Your task to perform on an android device: Open display settings Image 0: 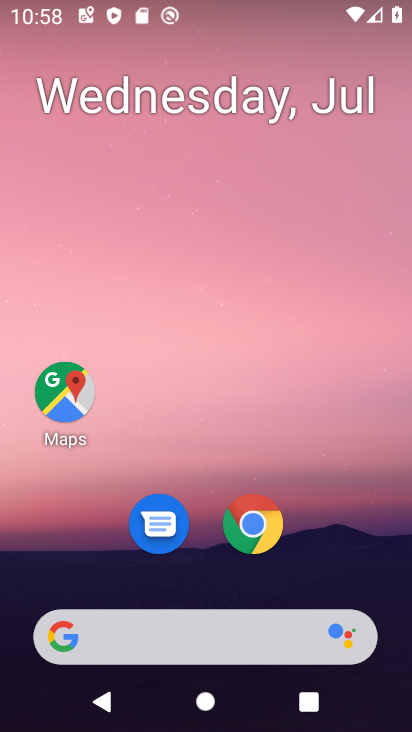
Step 0: drag from (152, 643) to (171, 35)
Your task to perform on an android device: Open display settings Image 1: 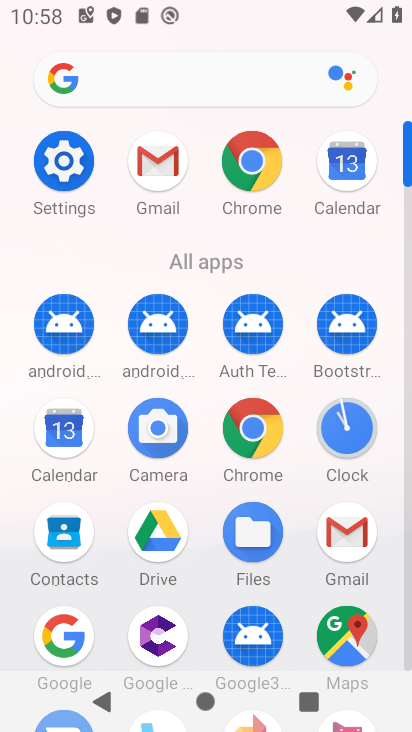
Step 1: click (71, 175)
Your task to perform on an android device: Open display settings Image 2: 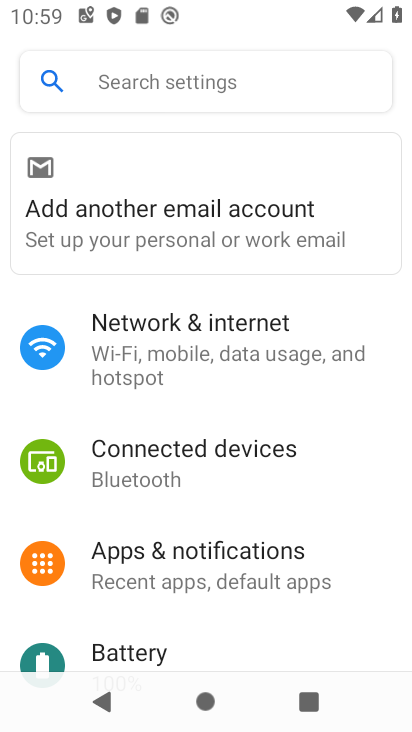
Step 2: drag from (158, 552) to (265, 193)
Your task to perform on an android device: Open display settings Image 3: 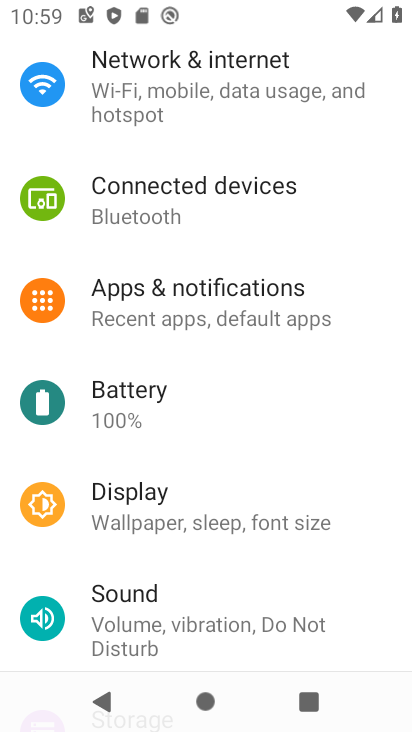
Step 3: click (151, 517)
Your task to perform on an android device: Open display settings Image 4: 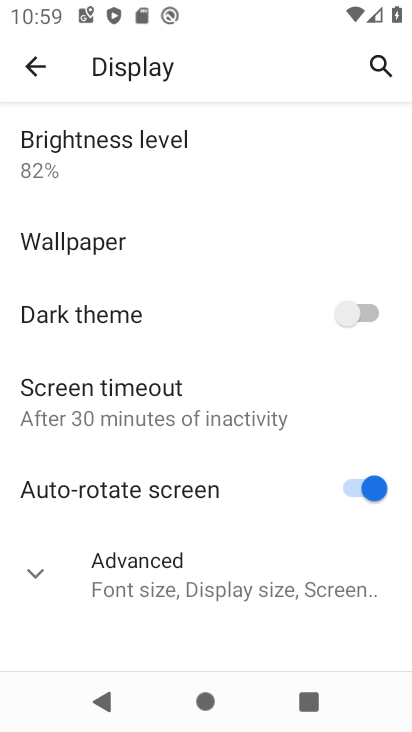
Step 4: task complete